Your task to perform on an android device: Do I have any events today? Image 0: 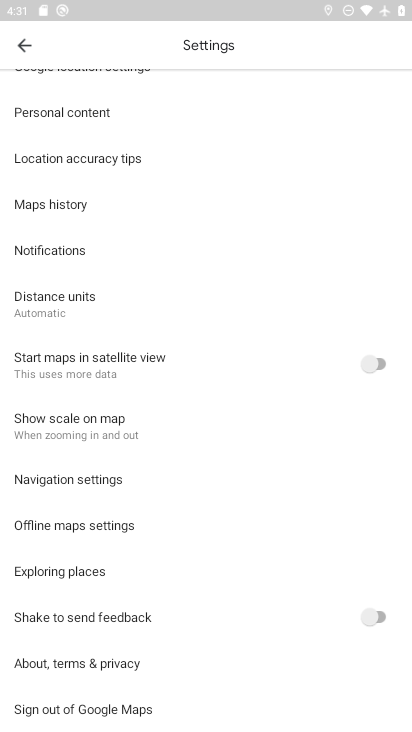
Step 0: press home button
Your task to perform on an android device: Do I have any events today? Image 1: 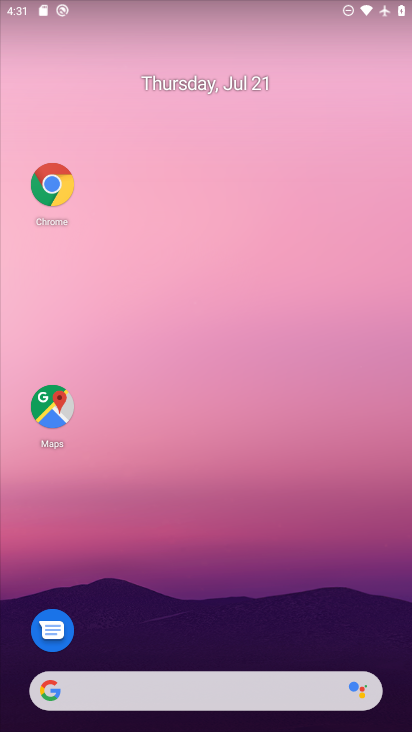
Step 1: drag from (233, 671) to (174, 72)
Your task to perform on an android device: Do I have any events today? Image 2: 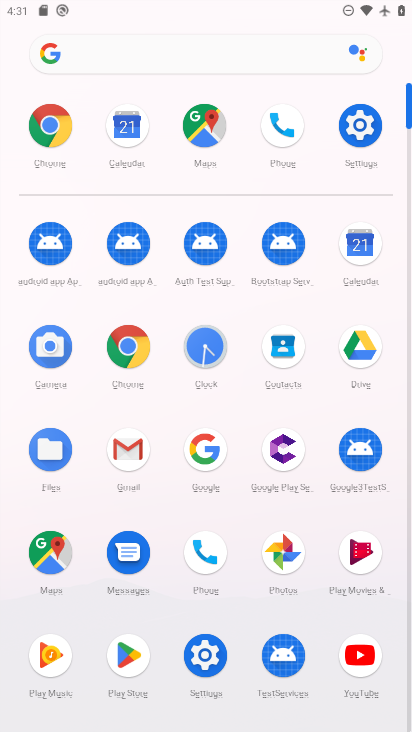
Step 2: click (355, 233)
Your task to perform on an android device: Do I have any events today? Image 3: 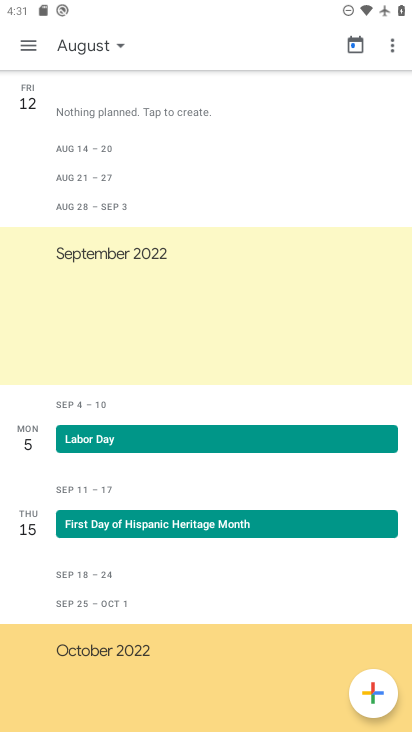
Step 3: click (346, 41)
Your task to perform on an android device: Do I have any events today? Image 4: 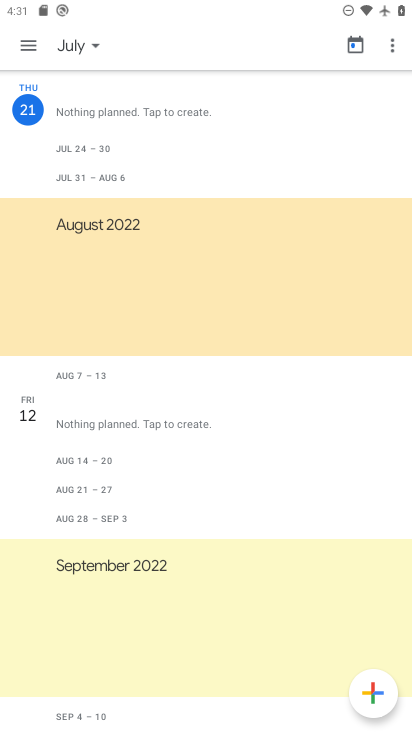
Step 4: click (29, 113)
Your task to perform on an android device: Do I have any events today? Image 5: 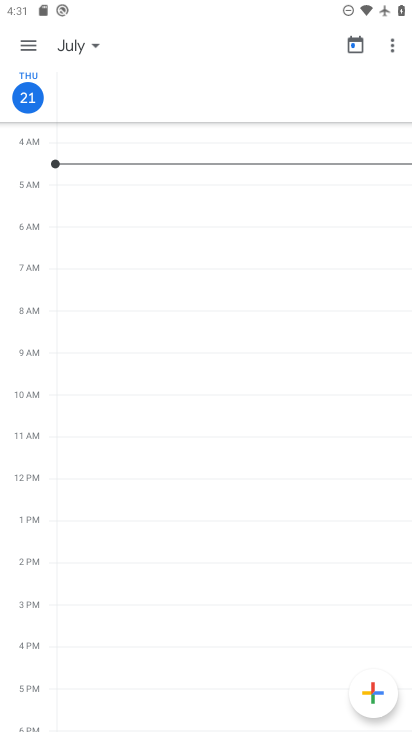
Step 5: task complete